Your task to perform on an android device: Go to Wikipedia Image 0: 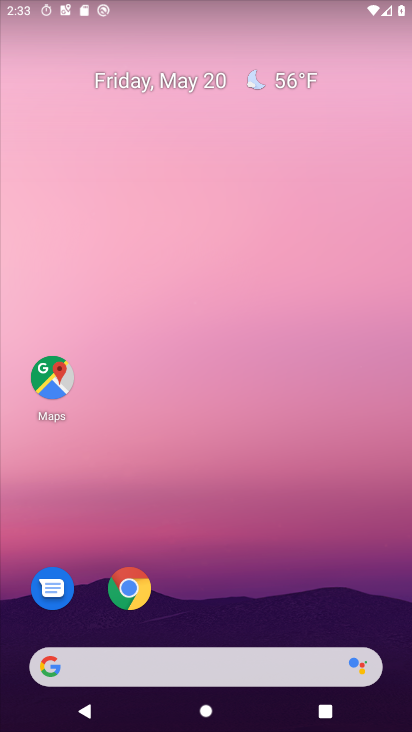
Step 0: click (123, 591)
Your task to perform on an android device: Go to Wikipedia Image 1: 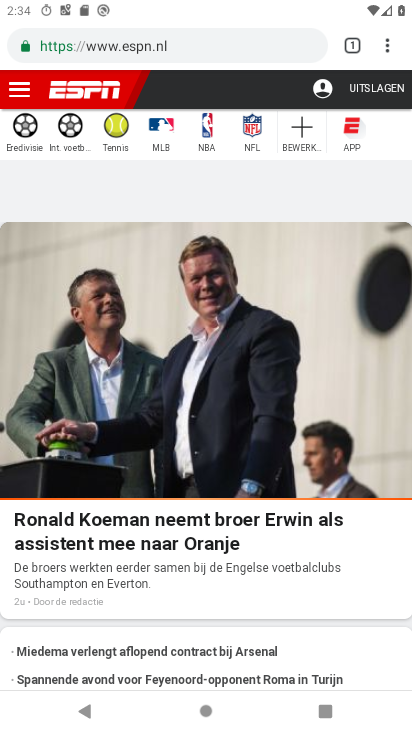
Step 1: click (356, 37)
Your task to perform on an android device: Go to Wikipedia Image 2: 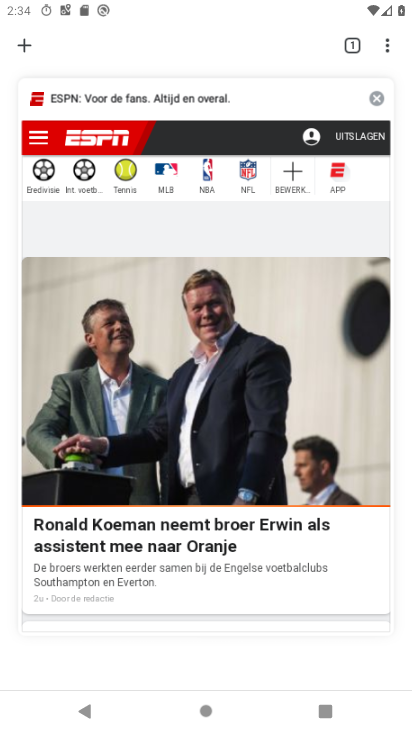
Step 2: click (373, 107)
Your task to perform on an android device: Go to Wikipedia Image 3: 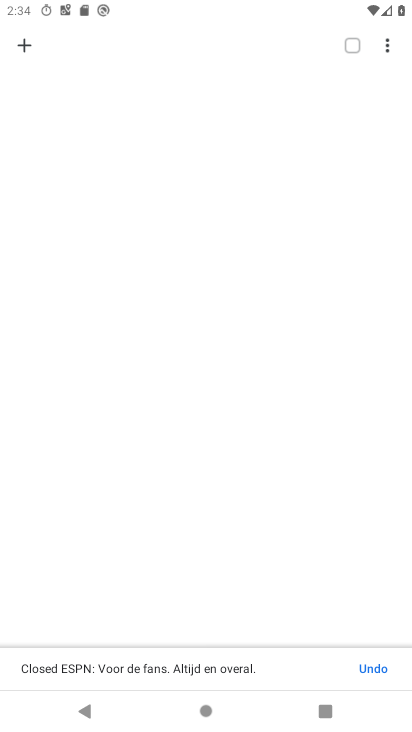
Step 3: click (20, 39)
Your task to perform on an android device: Go to Wikipedia Image 4: 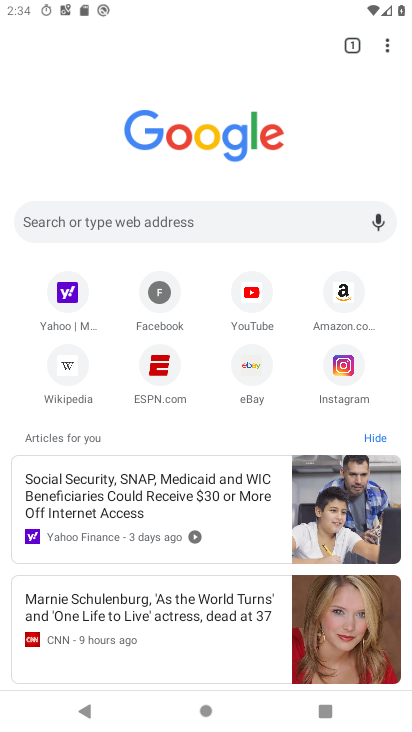
Step 4: click (64, 365)
Your task to perform on an android device: Go to Wikipedia Image 5: 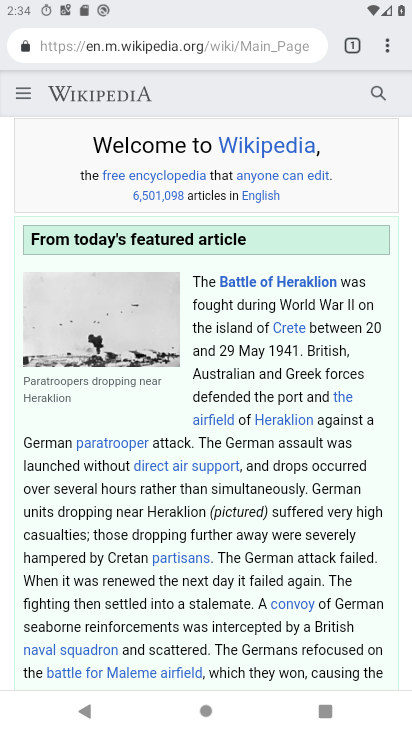
Step 5: task complete